Your task to perform on an android device: Go to privacy settings Image 0: 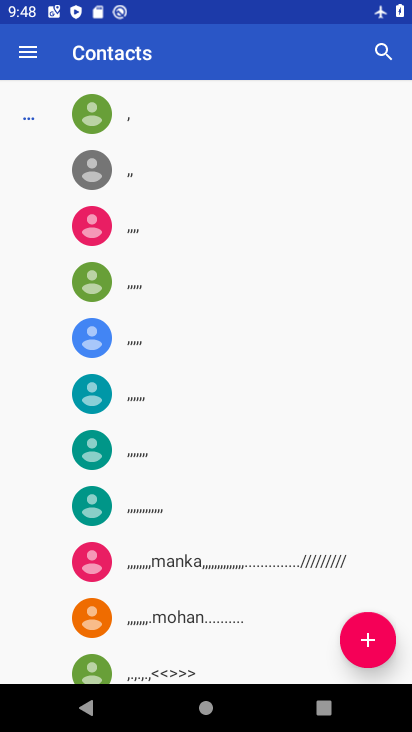
Step 0: press home button
Your task to perform on an android device: Go to privacy settings Image 1: 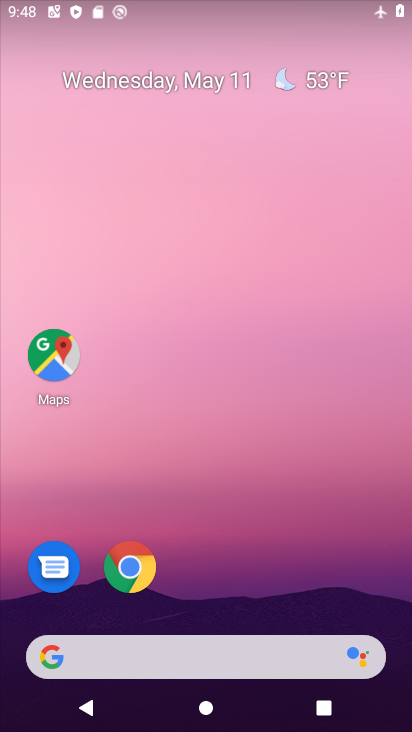
Step 1: drag from (272, 708) to (157, 33)
Your task to perform on an android device: Go to privacy settings Image 2: 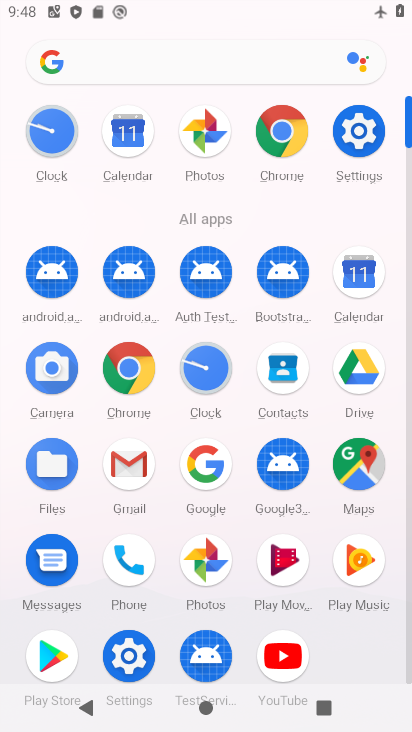
Step 2: click (359, 136)
Your task to perform on an android device: Go to privacy settings Image 3: 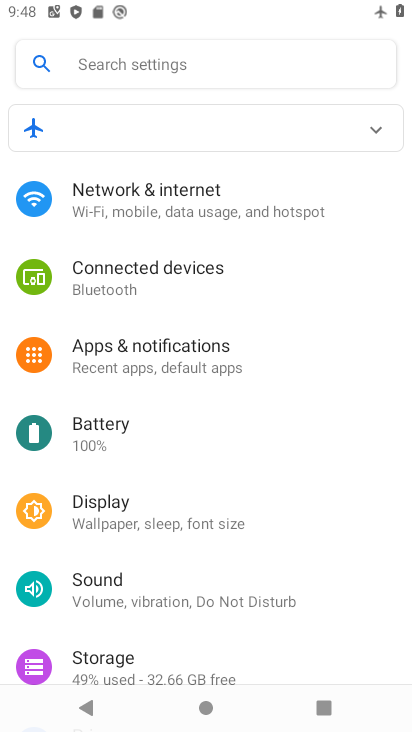
Step 3: drag from (281, 615) to (186, 111)
Your task to perform on an android device: Go to privacy settings Image 4: 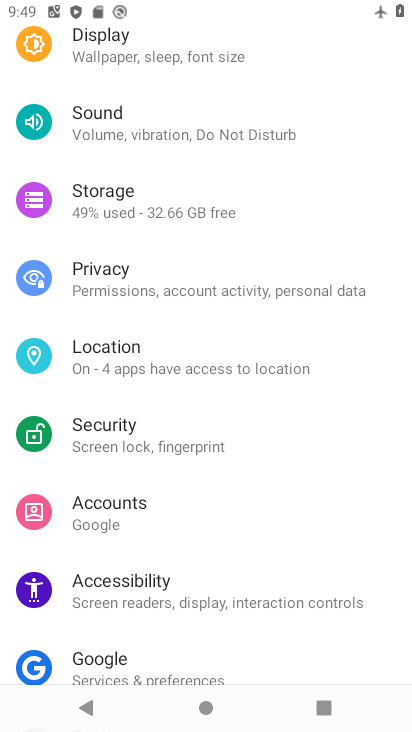
Step 4: drag from (223, 613) to (168, 151)
Your task to perform on an android device: Go to privacy settings Image 5: 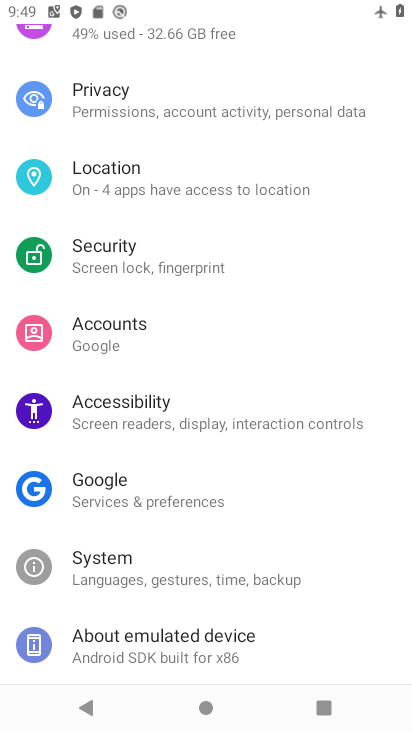
Step 5: click (233, 103)
Your task to perform on an android device: Go to privacy settings Image 6: 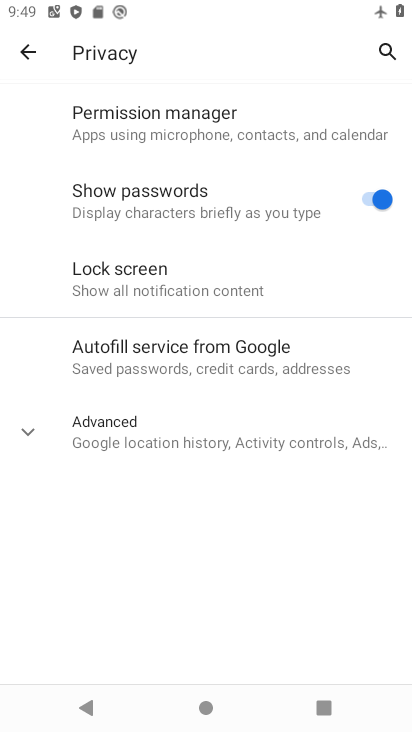
Step 6: task complete